Your task to perform on an android device: toggle translation in the chrome app Image 0: 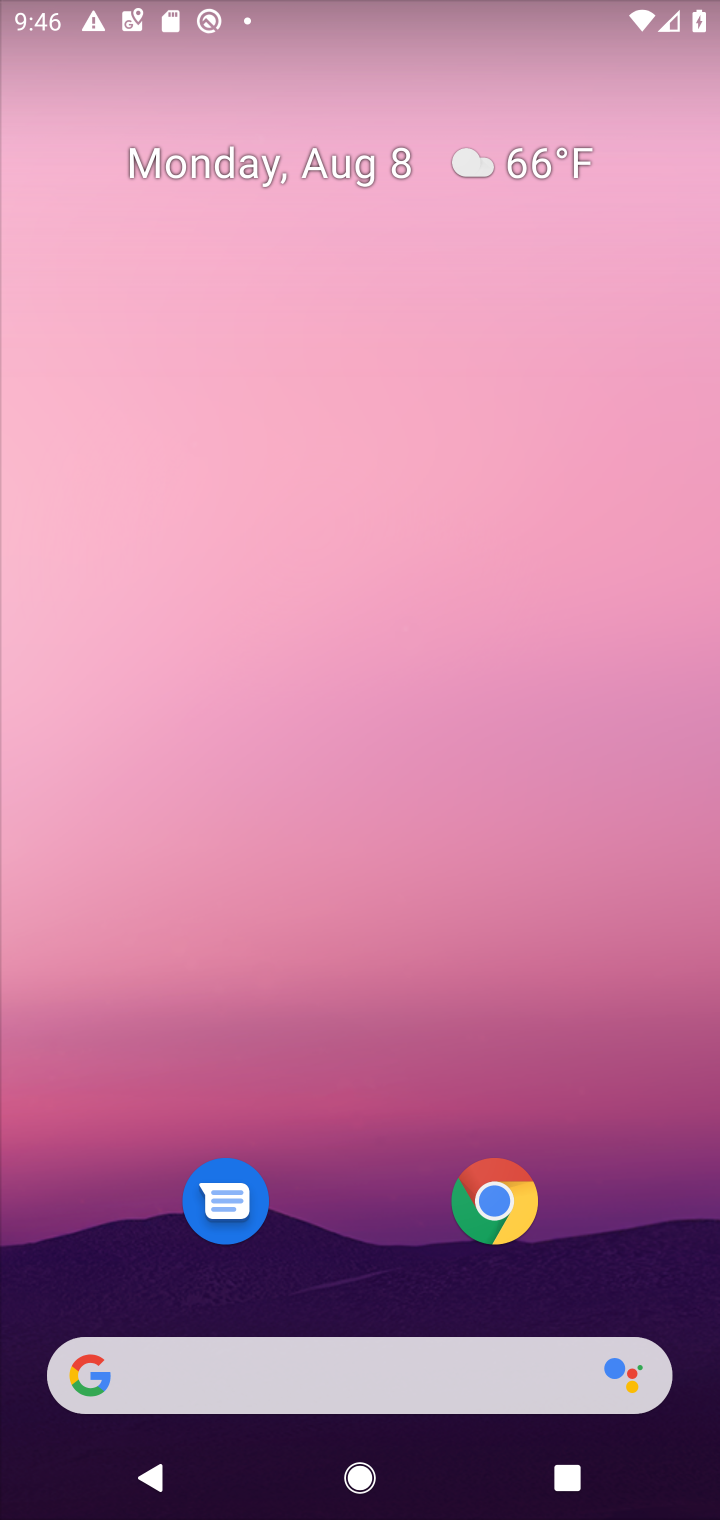
Step 0: press home button
Your task to perform on an android device: toggle translation in the chrome app Image 1: 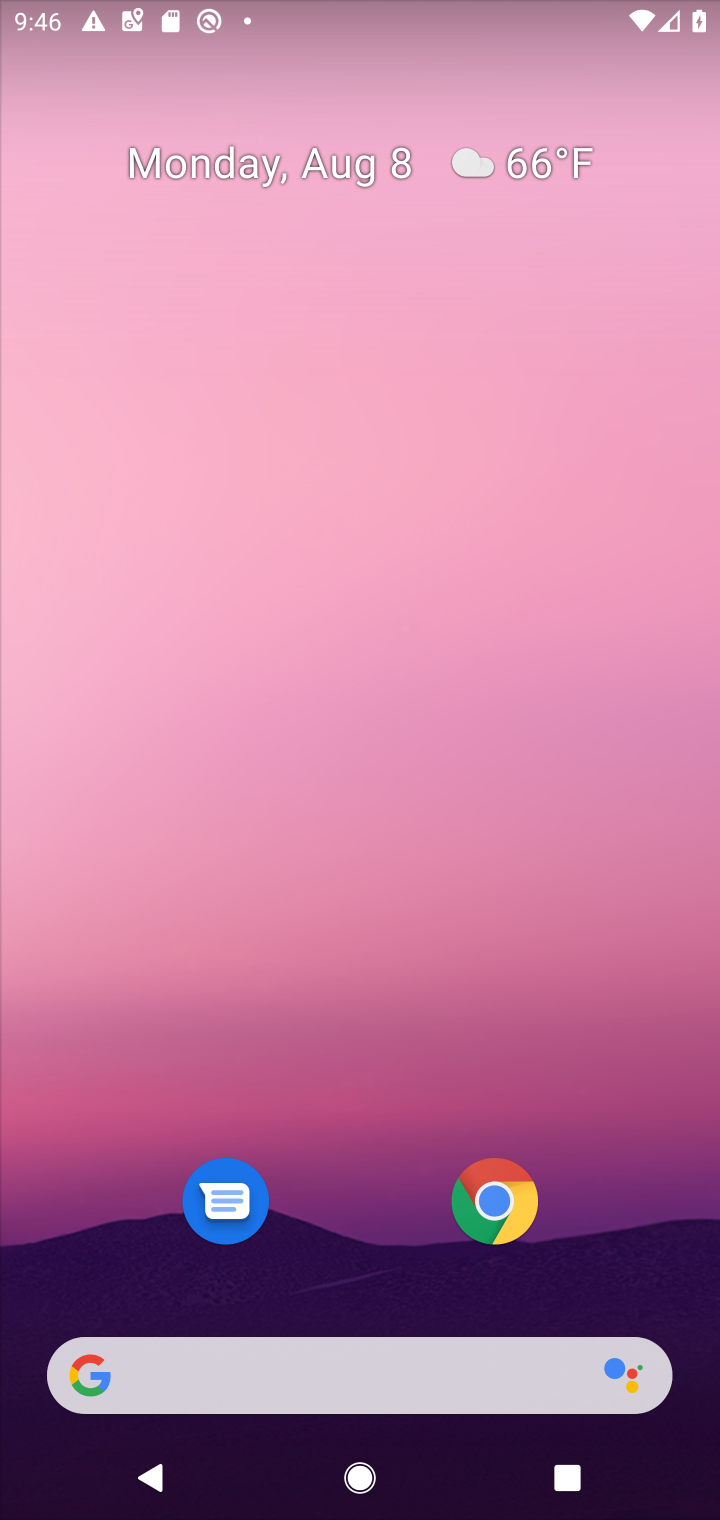
Step 1: drag from (608, 1057) to (584, 345)
Your task to perform on an android device: toggle translation in the chrome app Image 2: 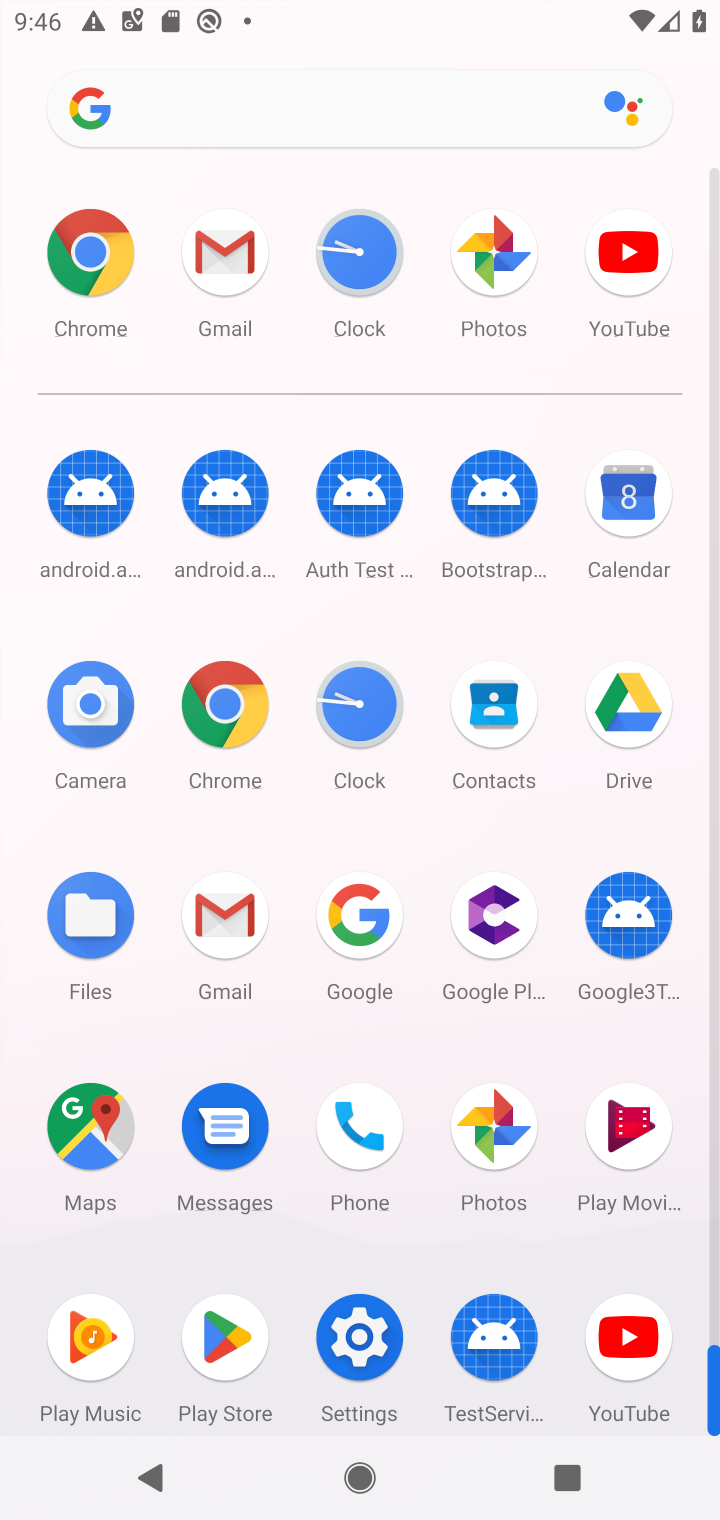
Step 2: click (218, 711)
Your task to perform on an android device: toggle translation in the chrome app Image 3: 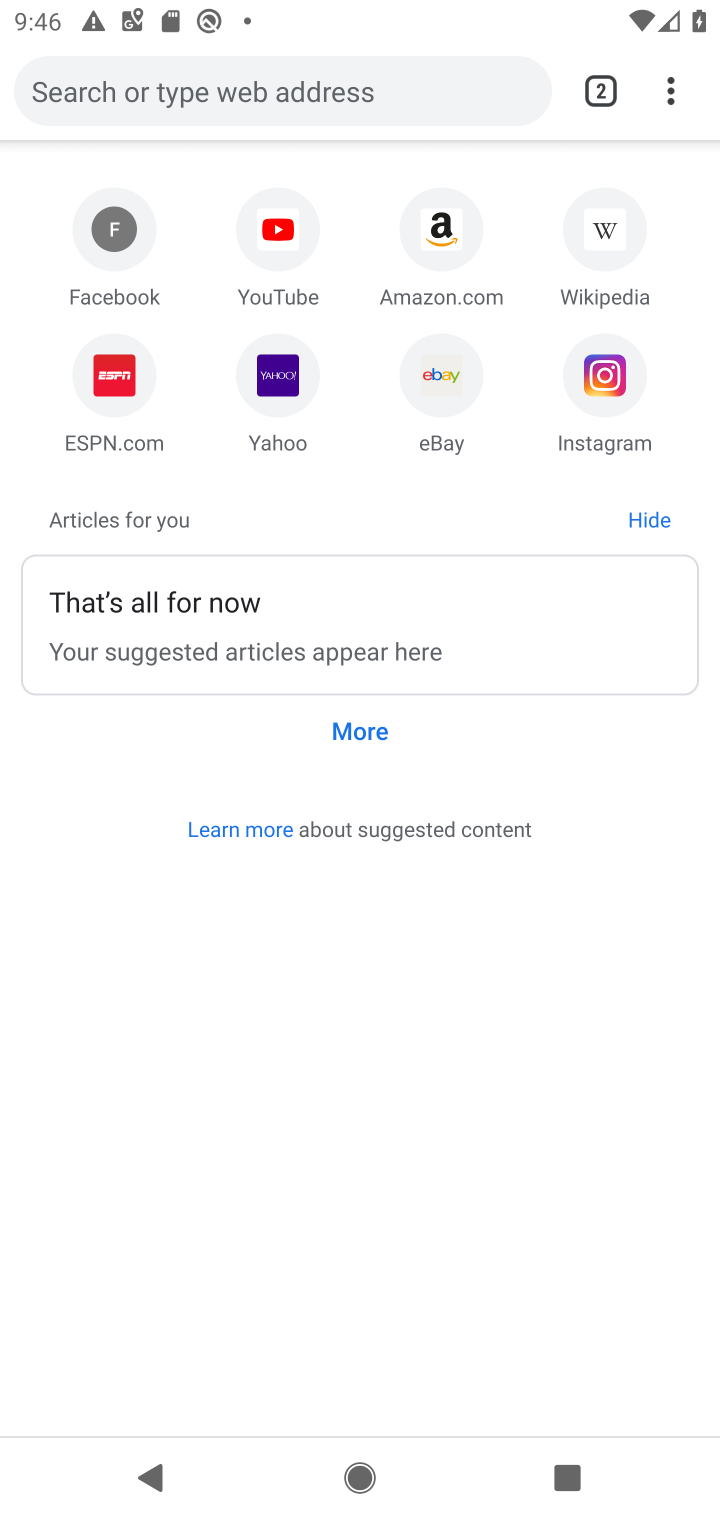
Step 3: click (671, 95)
Your task to perform on an android device: toggle translation in the chrome app Image 4: 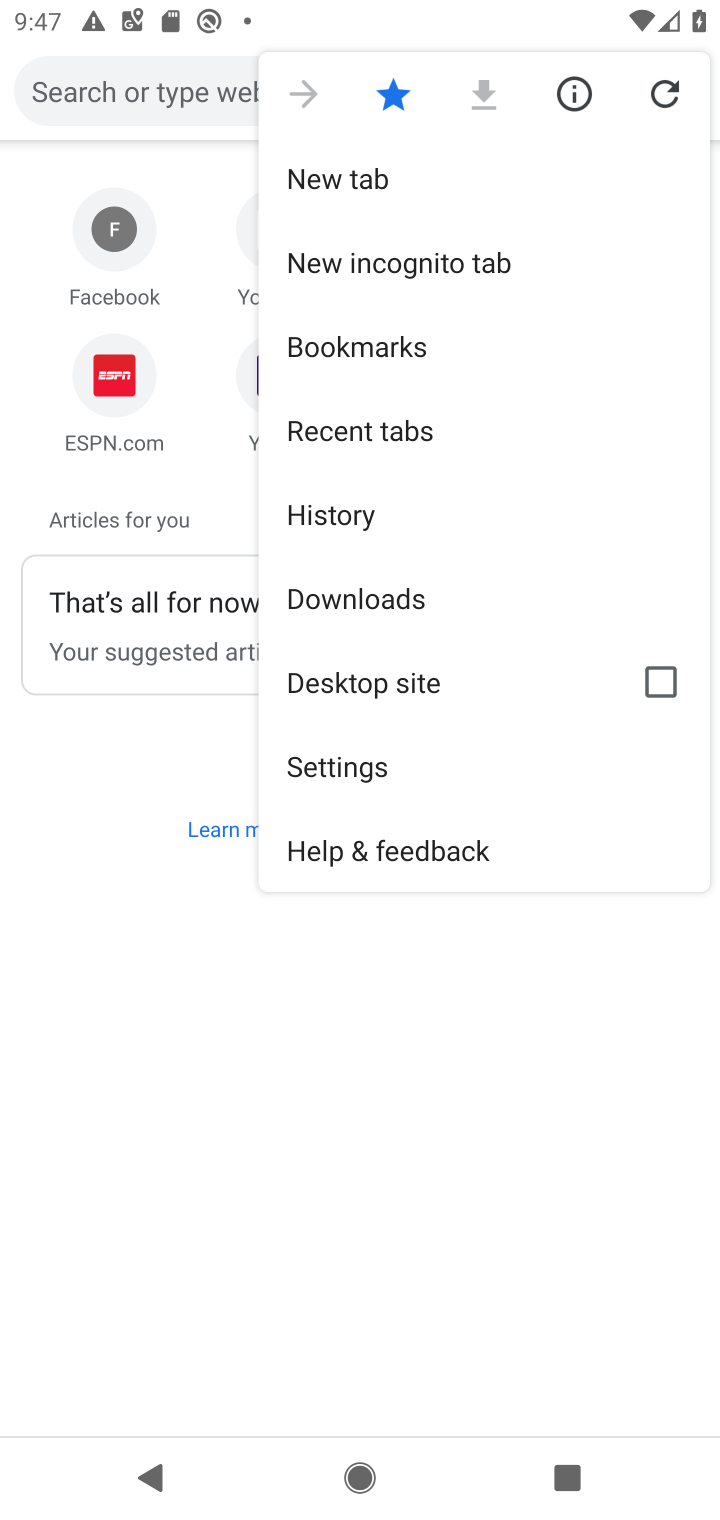
Step 4: click (380, 770)
Your task to perform on an android device: toggle translation in the chrome app Image 5: 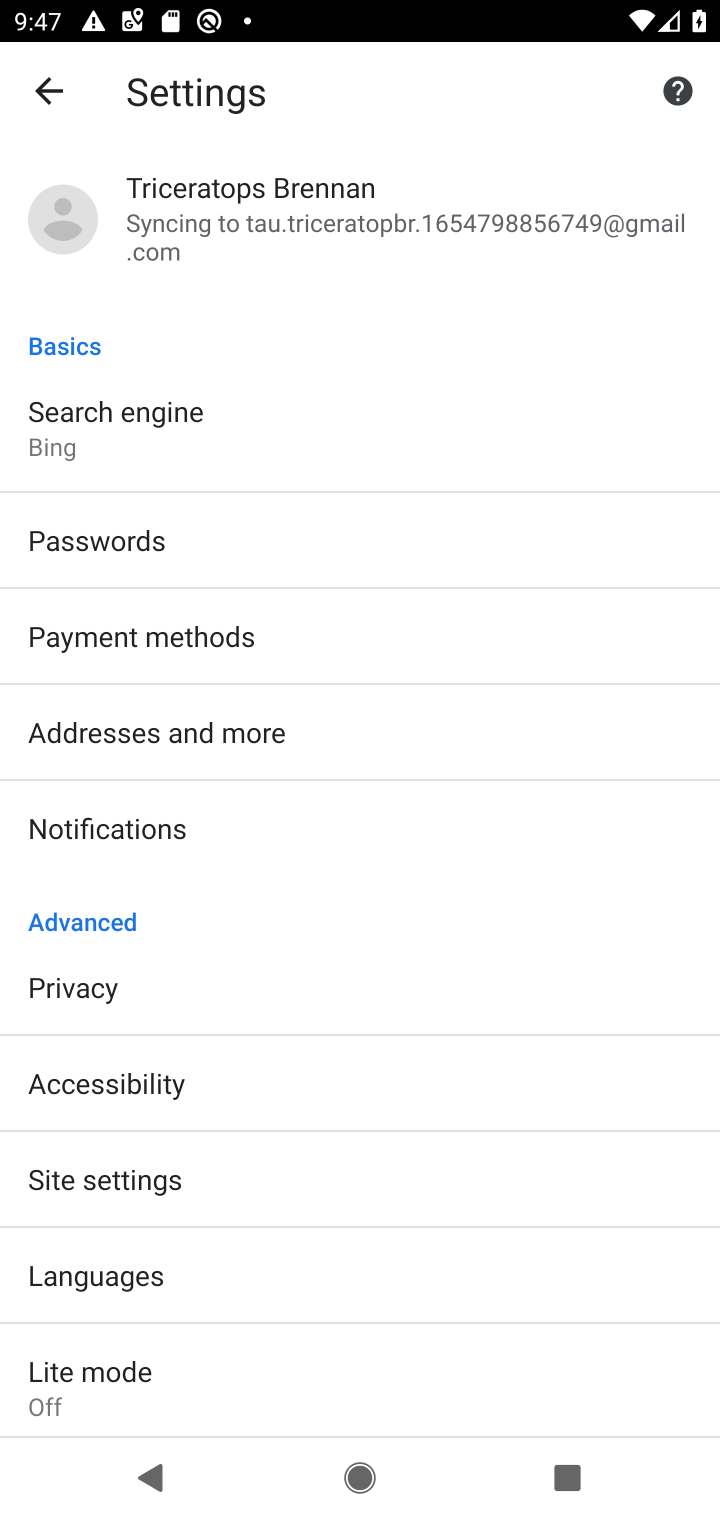
Step 5: drag from (474, 924) to (491, 738)
Your task to perform on an android device: toggle translation in the chrome app Image 6: 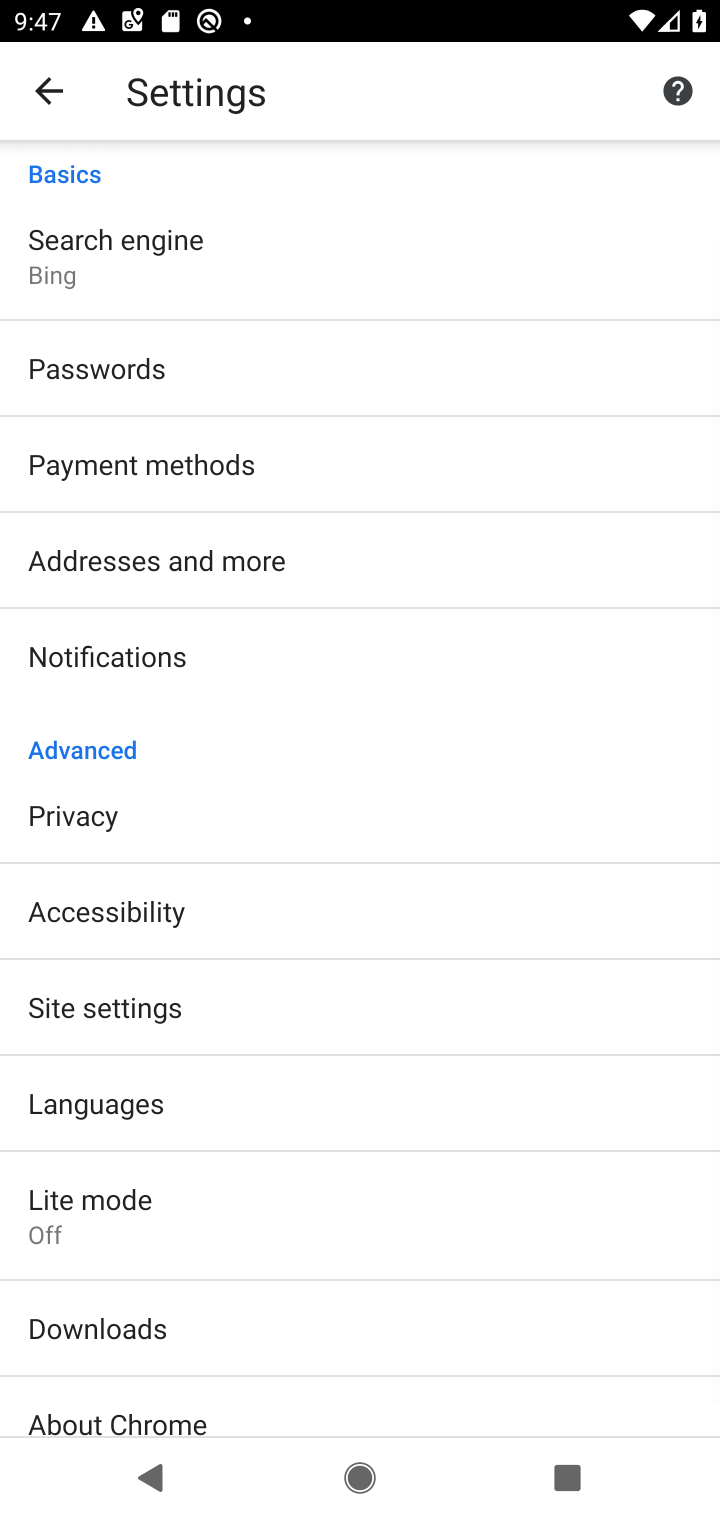
Step 6: drag from (475, 1025) to (515, 696)
Your task to perform on an android device: toggle translation in the chrome app Image 7: 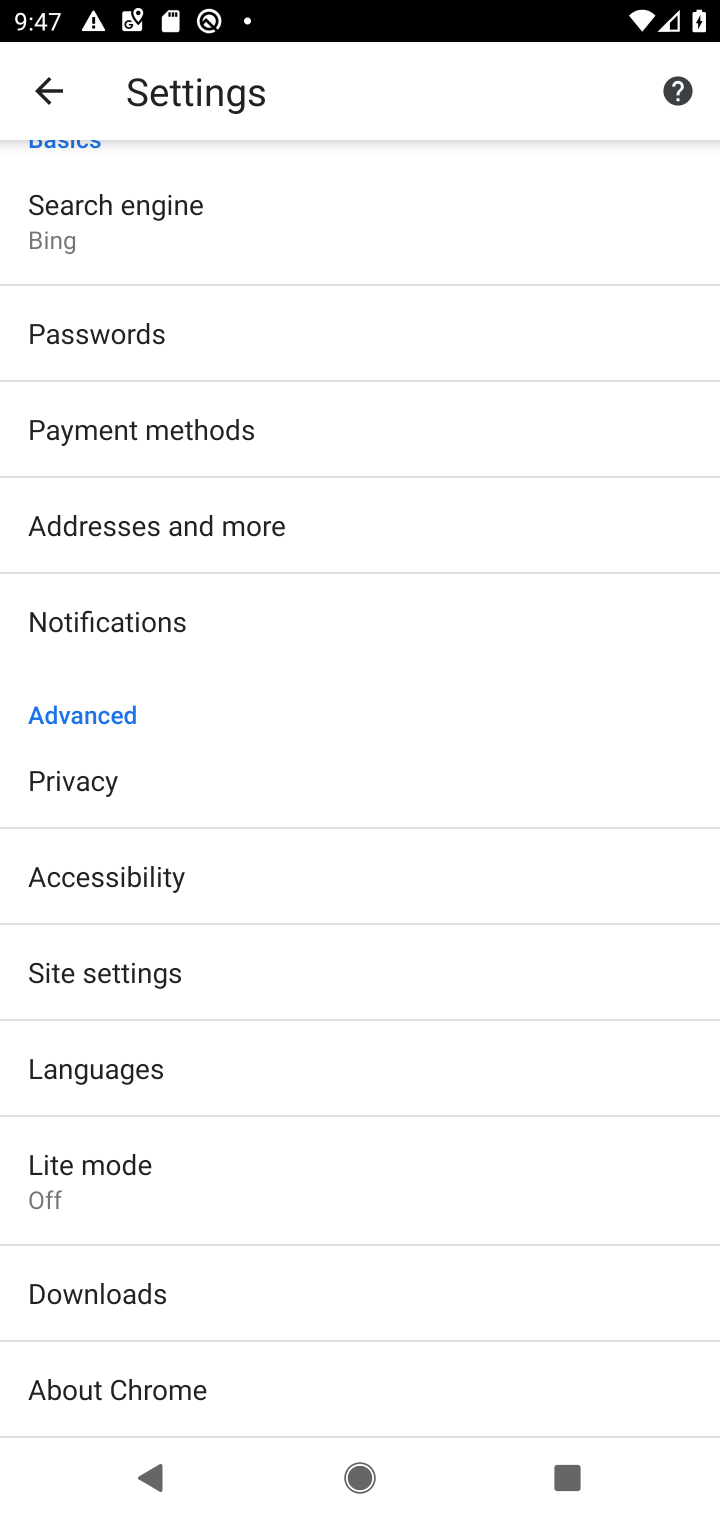
Step 7: click (540, 1048)
Your task to perform on an android device: toggle translation in the chrome app Image 8: 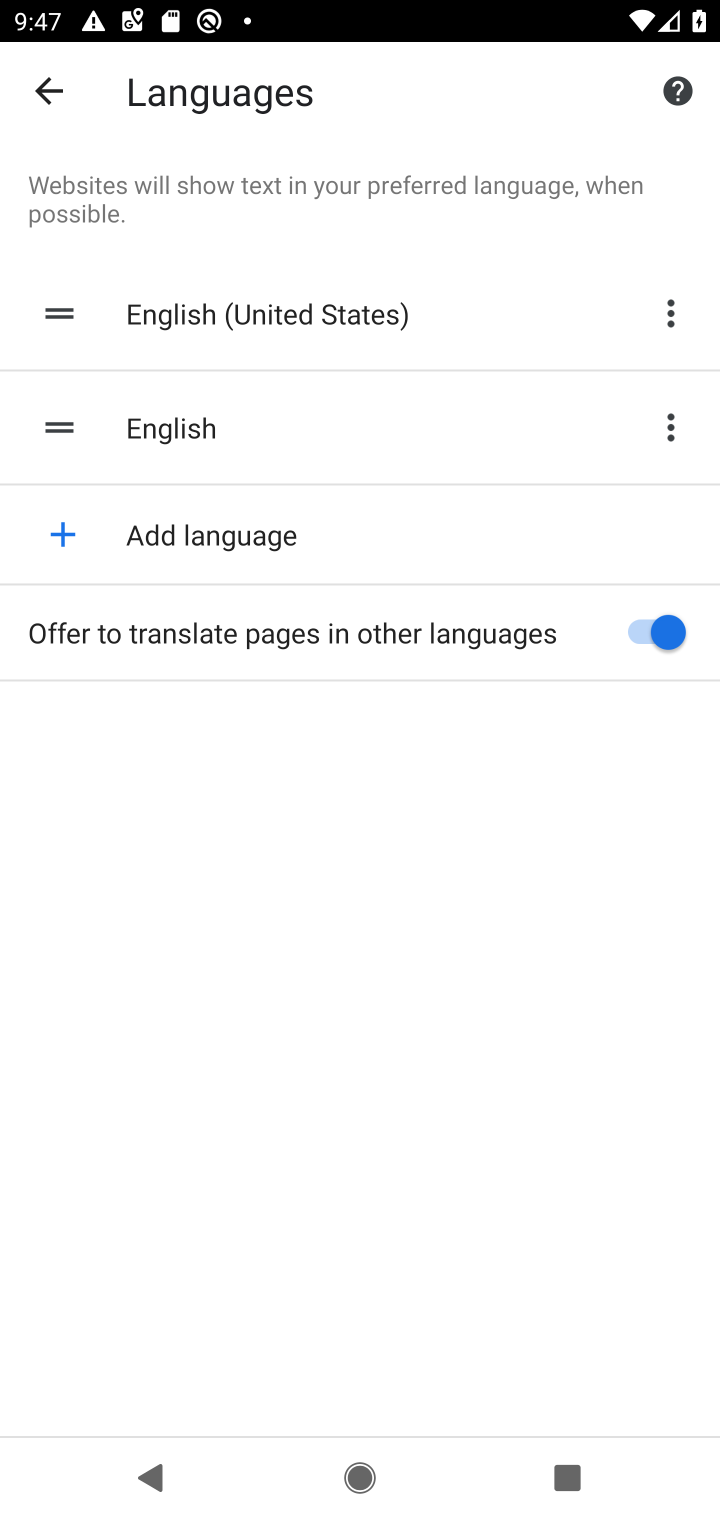
Step 8: click (663, 623)
Your task to perform on an android device: toggle translation in the chrome app Image 9: 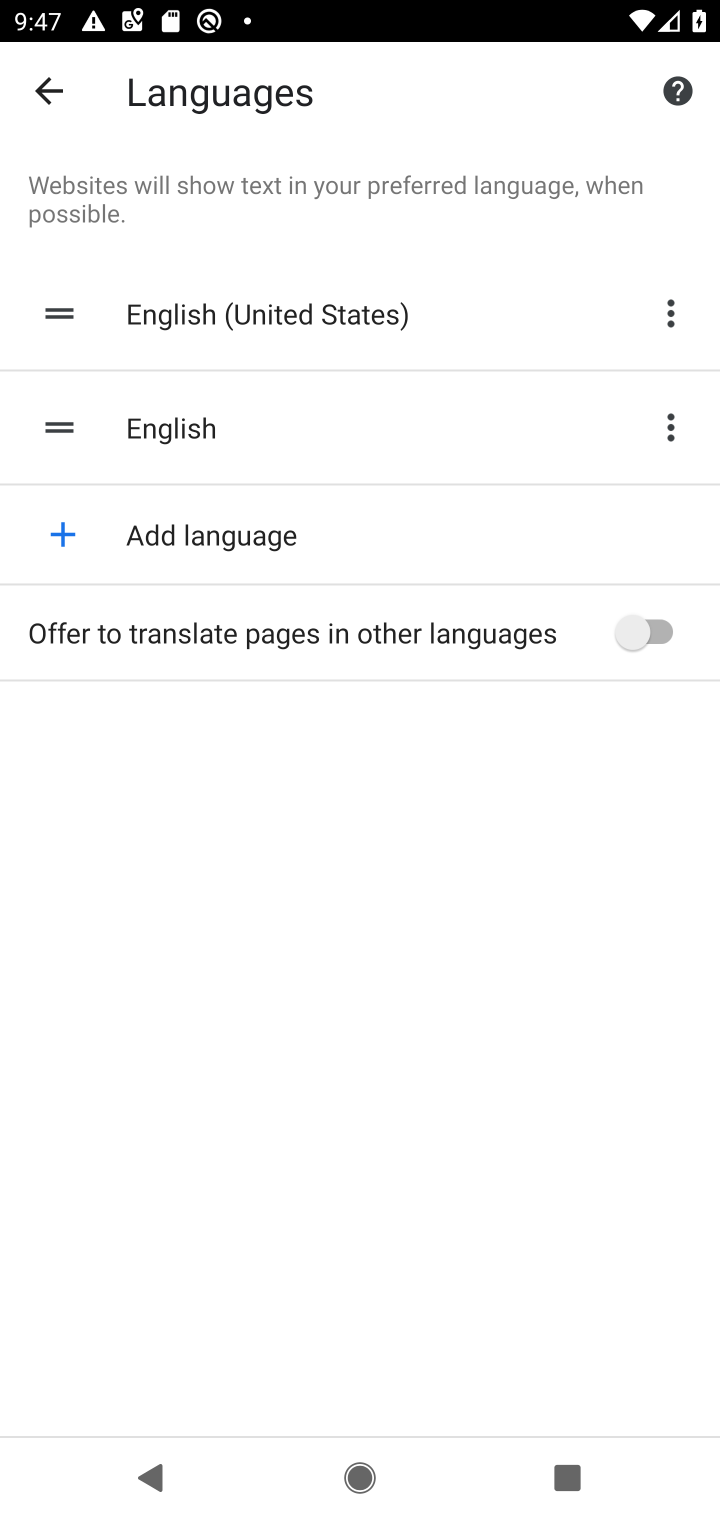
Step 9: task complete